Your task to perform on an android device: find photos in the google photos app Image 0: 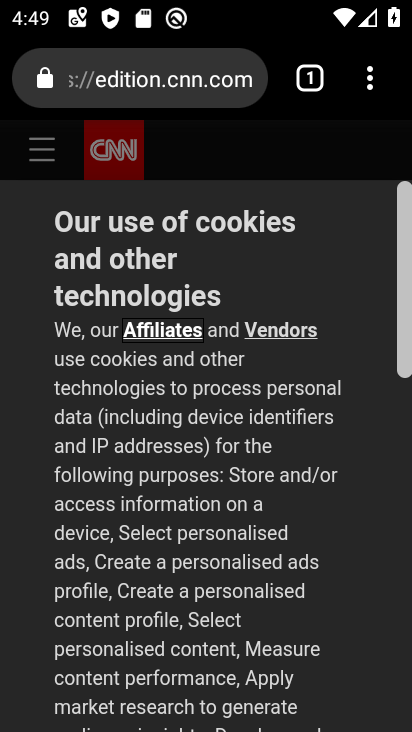
Step 0: click (369, 80)
Your task to perform on an android device: find photos in the google photos app Image 1: 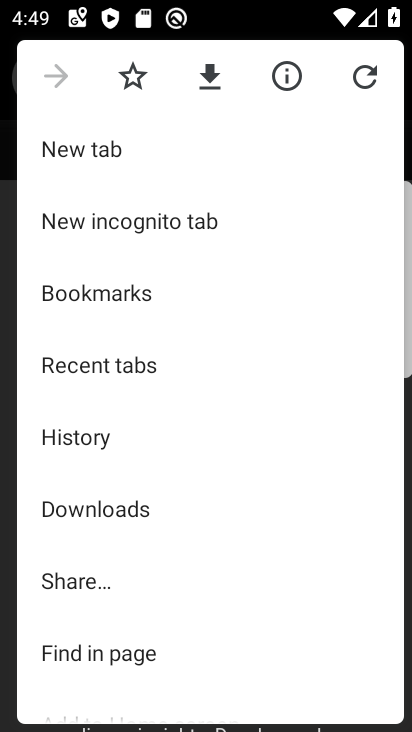
Step 1: press home button
Your task to perform on an android device: find photos in the google photos app Image 2: 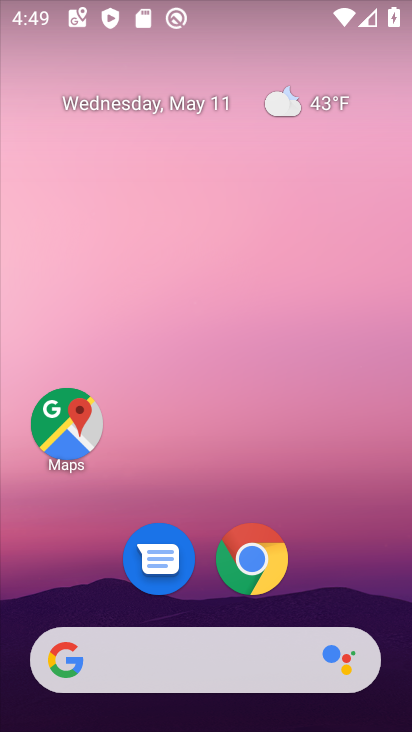
Step 2: drag from (324, 571) to (325, 162)
Your task to perform on an android device: find photos in the google photos app Image 3: 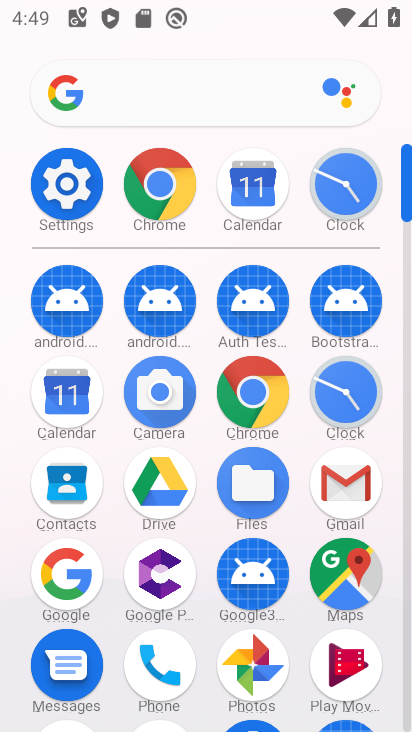
Step 3: click (262, 654)
Your task to perform on an android device: find photos in the google photos app Image 4: 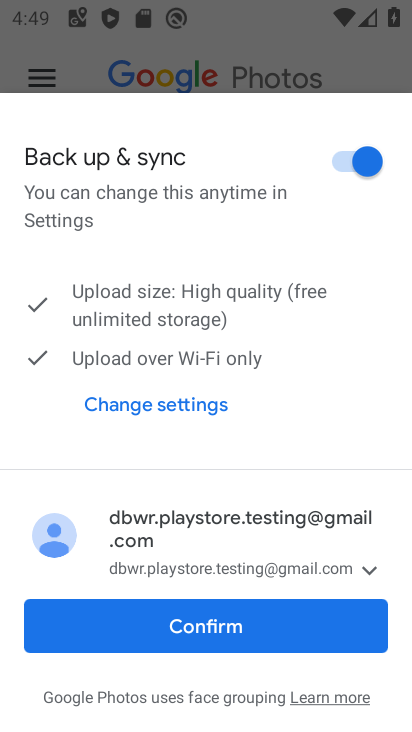
Step 4: click (201, 637)
Your task to perform on an android device: find photos in the google photos app Image 5: 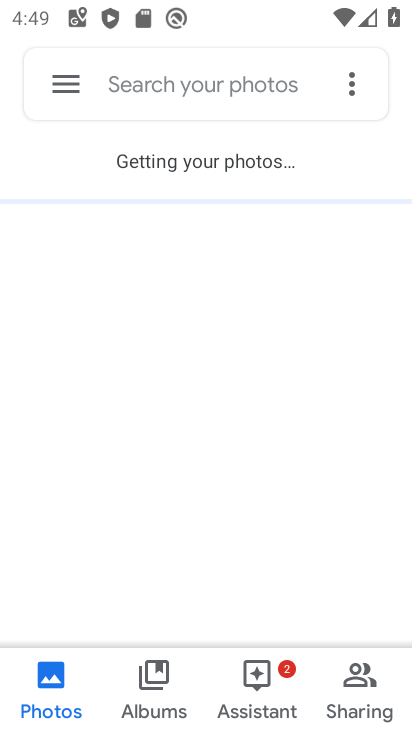
Step 5: click (166, 79)
Your task to perform on an android device: find photos in the google photos app Image 6: 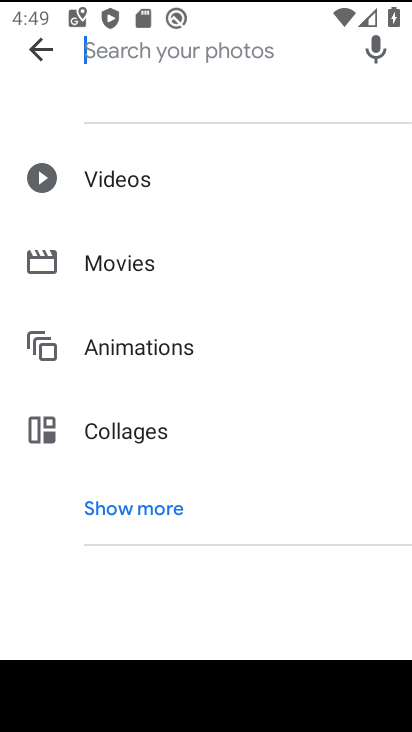
Step 6: click (144, 510)
Your task to perform on an android device: find photos in the google photos app Image 7: 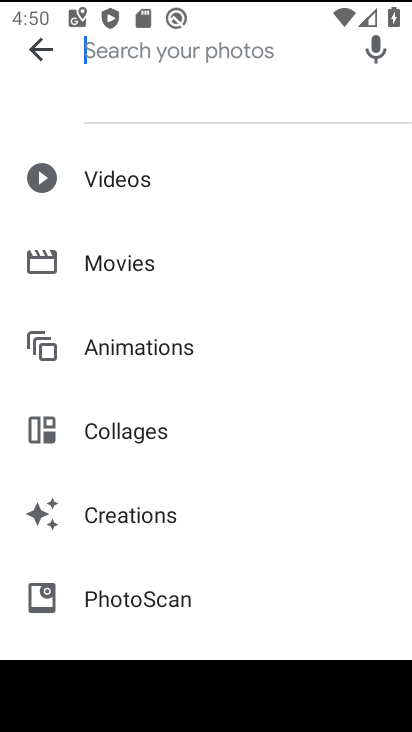
Step 7: press back button
Your task to perform on an android device: find photos in the google photos app Image 8: 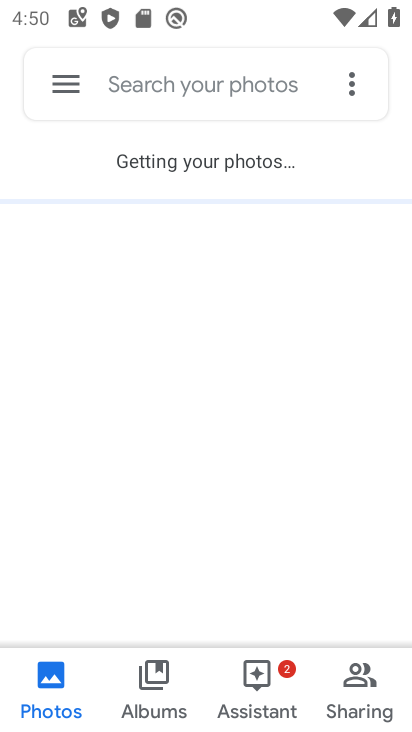
Step 8: click (67, 82)
Your task to perform on an android device: find photos in the google photos app Image 9: 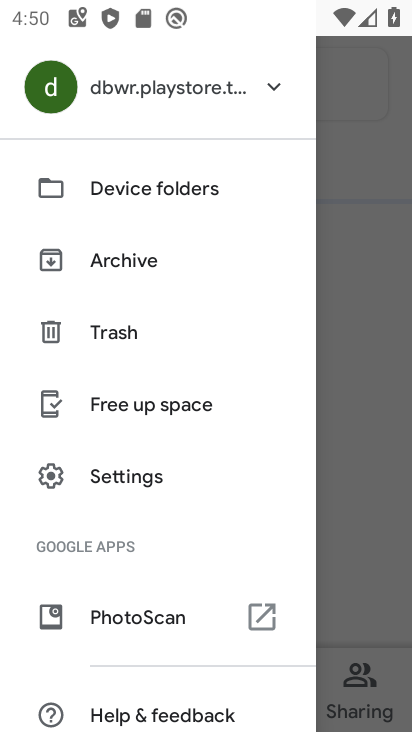
Step 9: press back button
Your task to perform on an android device: find photos in the google photos app Image 10: 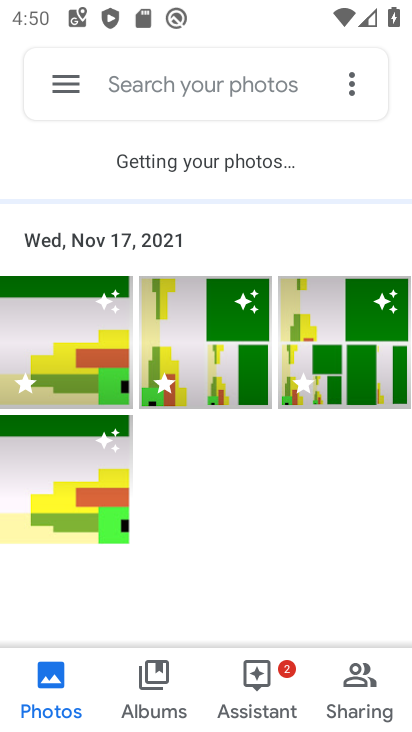
Step 10: click (153, 75)
Your task to perform on an android device: find photos in the google photos app Image 11: 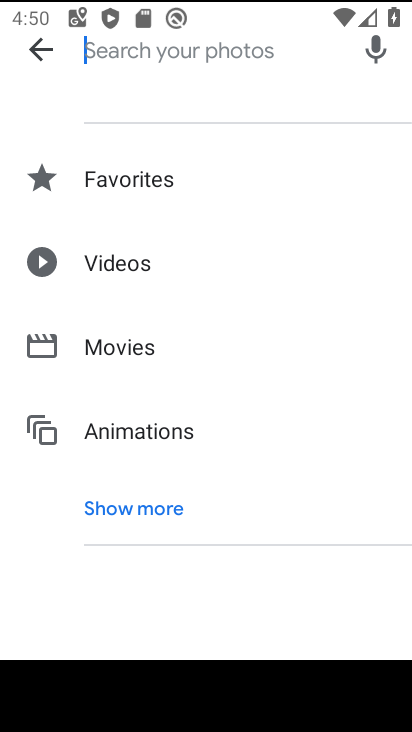
Step 11: click (131, 501)
Your task to perform on an android device: find photos in the google photos app Image 12: 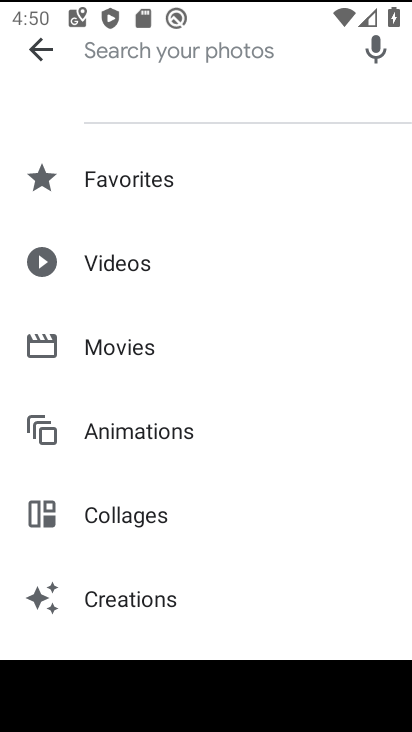
Step 12: drag from (118, 535) to (154, 357)
Your task to perform on an android device: find photos in the google photos app Image 13: 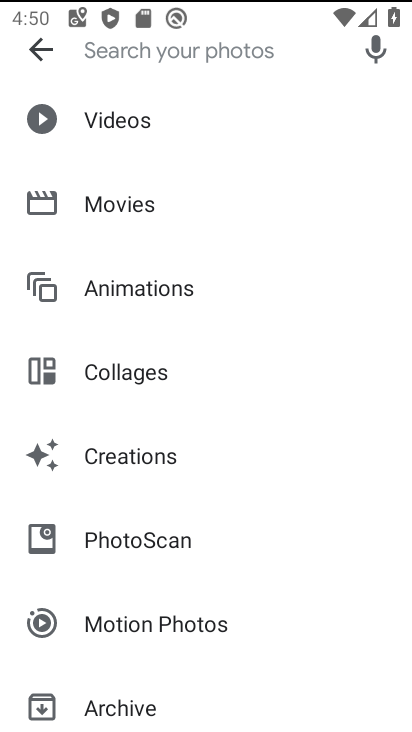
Step 13: drag from (134, 569) to (184, 325)
Your task to perform on an android device: find photos in the google photos app Image 14: 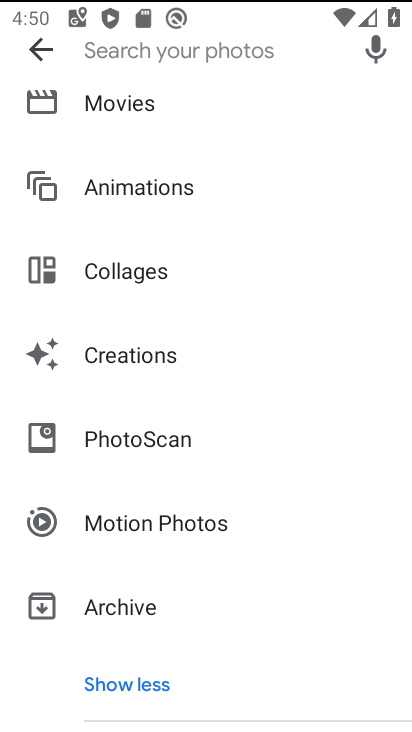
Step 14: drag from (135, 652) to (203, 383)
Your task to perform on an android device: find photos in the google photos app Image 15: 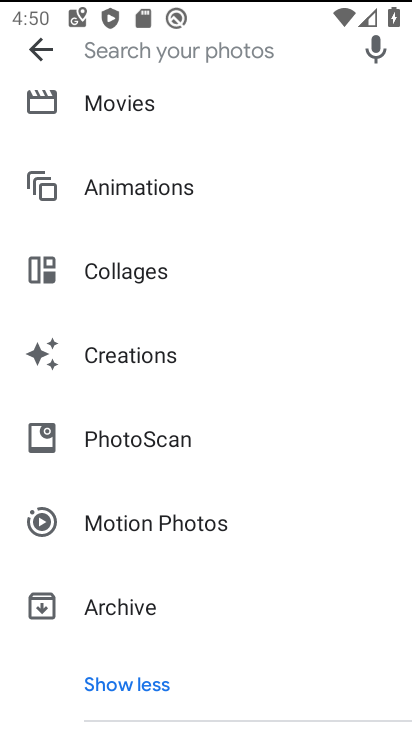
Step 15: drag from (203, 237) to (206, 581)
Your task to perform on an android device: find photos in the google photos app Image 16: 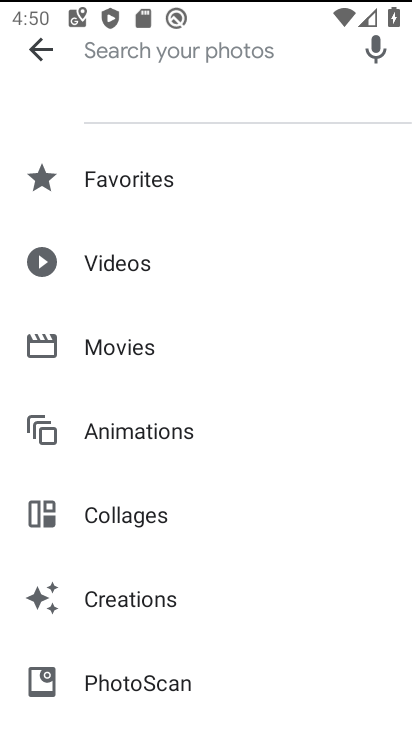
Step 16: click (138, 187)
Your task to perform on an android device: find photos in the google photos app Image 17: 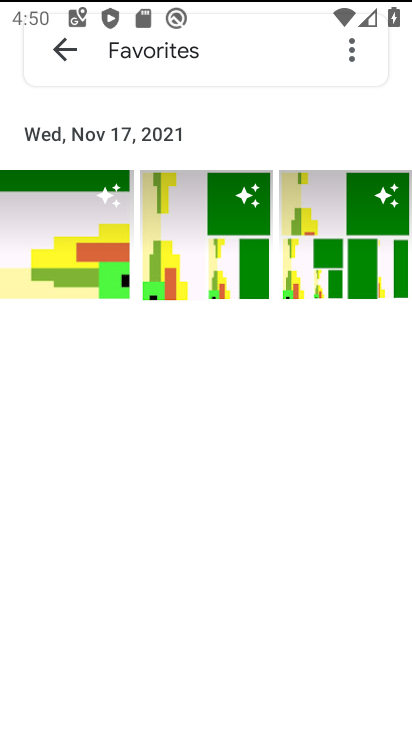
Step 17: task complete